Your task to perform on an android device: Open the calendar app, open the side menu, and click the "Day" option Image 0: 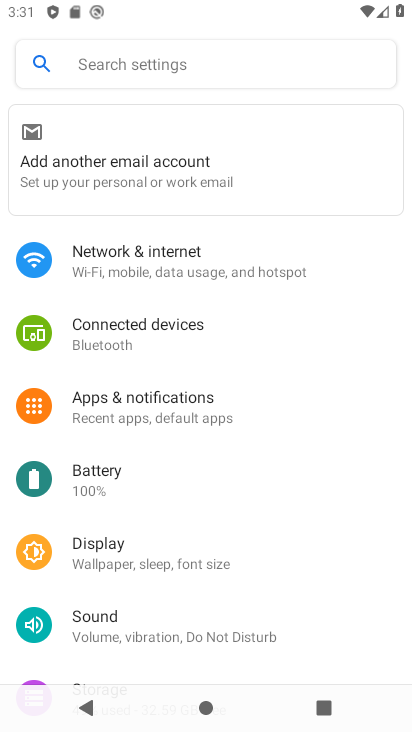
Step 0: press home button
Your task to perform on an android device: Open the calendar app, open the side menu, and click the "Day" option Image 1: 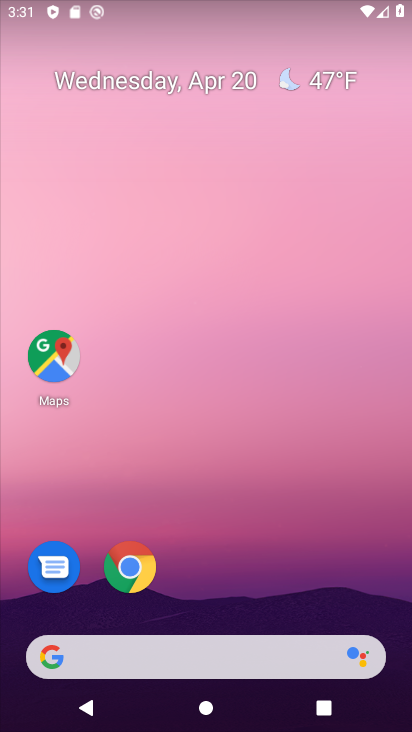
Step 1: click (166, 89)
Your task to perform on an android device: Open the calendar app, open the side menu, and click the "Day" option Image 2: 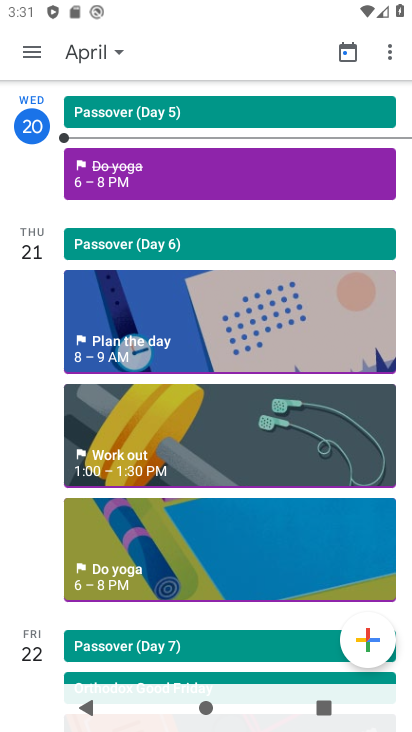
Step 2: click (40, 66)
Your task to perform on an android device: Open the calendar app, open the side menu, and click the "Day" option Image 3: 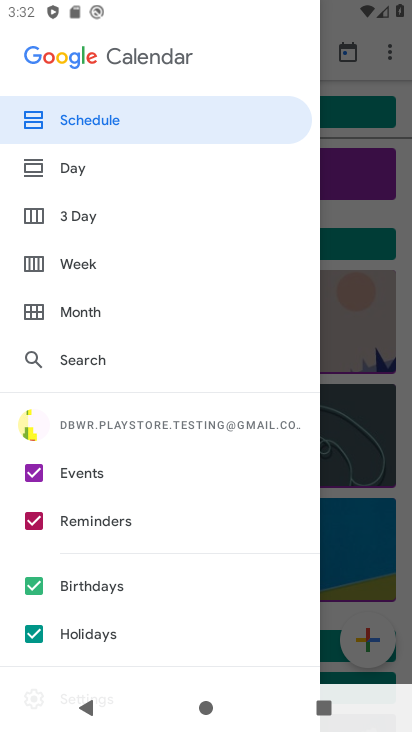
Step 3: click (84, 190)
Your task to perform on an android device: Open the calendar app, open the side menu, and click the "Day" option Image 4: 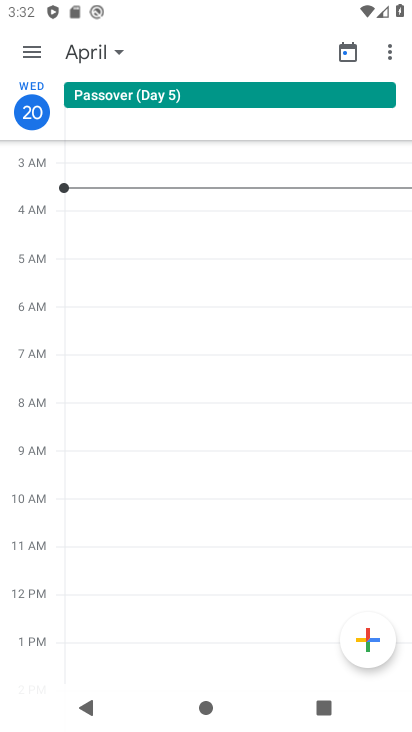
Step 4: task complete